Your task to perform on an android device: turn on the 24-hour format for clock Image 0: 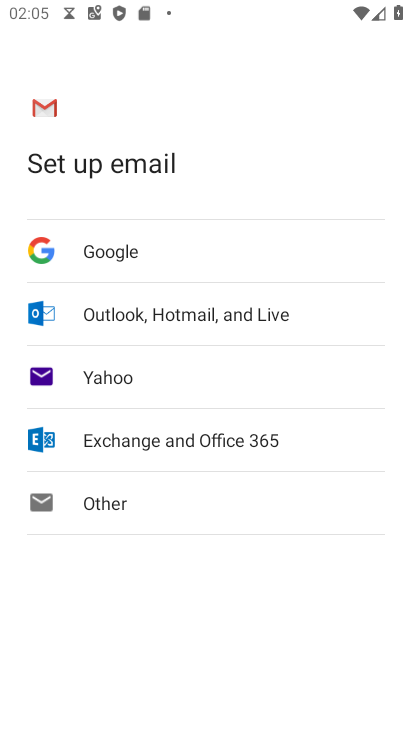
Step 0: press home button
Your task to perform on an android device: turn on the 24-hour format for clock Image 1: 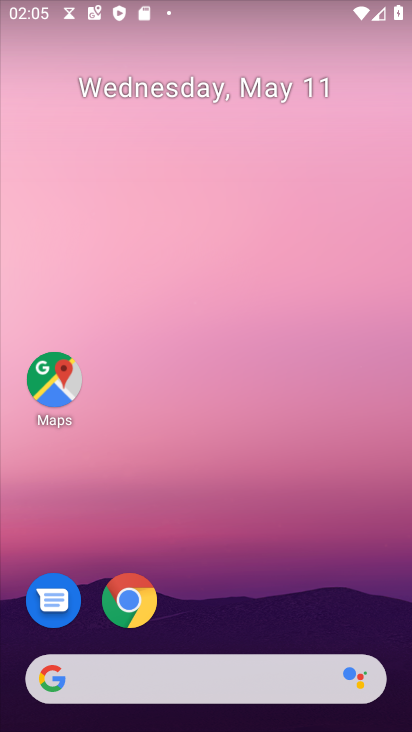
Step 1: drag from (229, 481) to (261, 251)
Your task to perform on an android device: turn on the 24-hour format for clock Image 2: 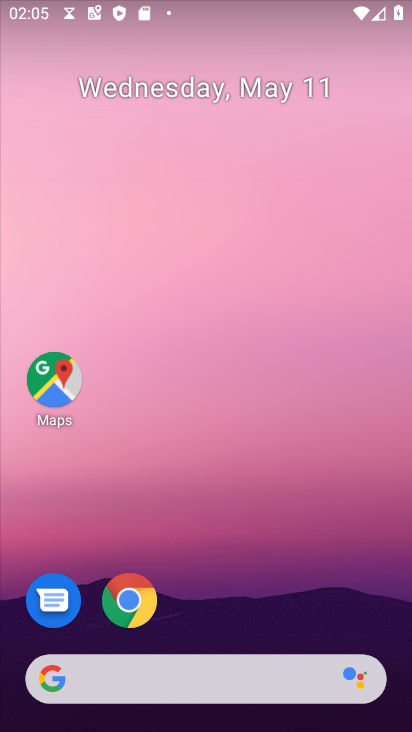
Step 2: drag from (238, 592) to (282, 238)
Your task to perform on an android device: turn on the 24-hour format for clock Image 3: 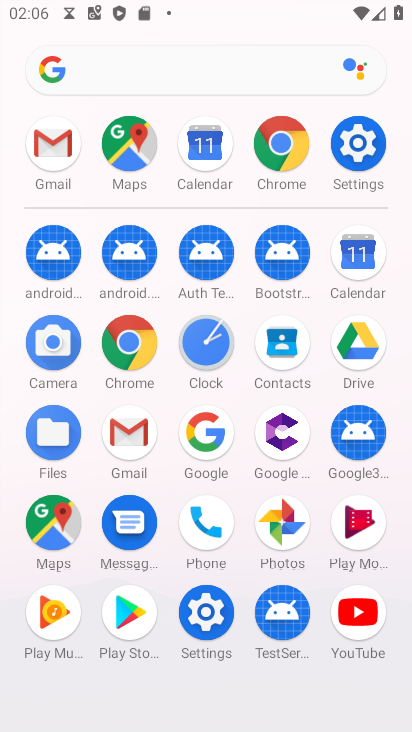
Step 3: click (195, 335)
Your task to perform on an android device: turn on the 24-hour format for clock Image 4: 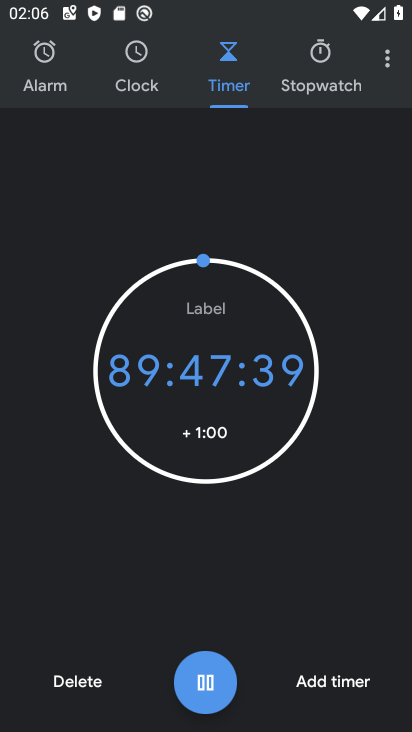
Step 4: click (375, 43)
Your task to perform on an android device: turn on the 24-hour format for clock Image 5: 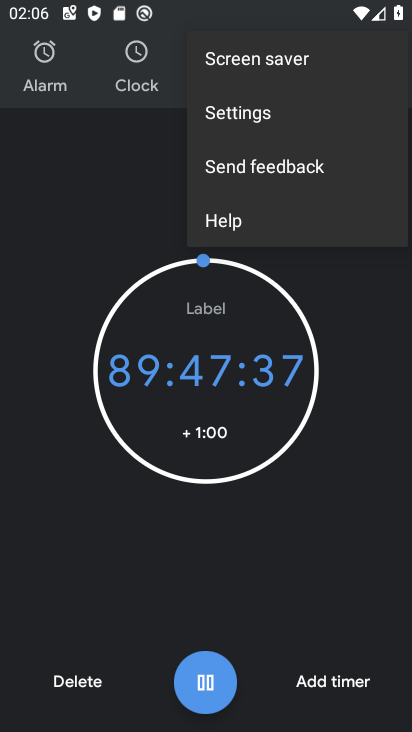
Step 5: click (283, 105)
Your task to perform on an android device: turn on the 24-hour format for clock Image 6: 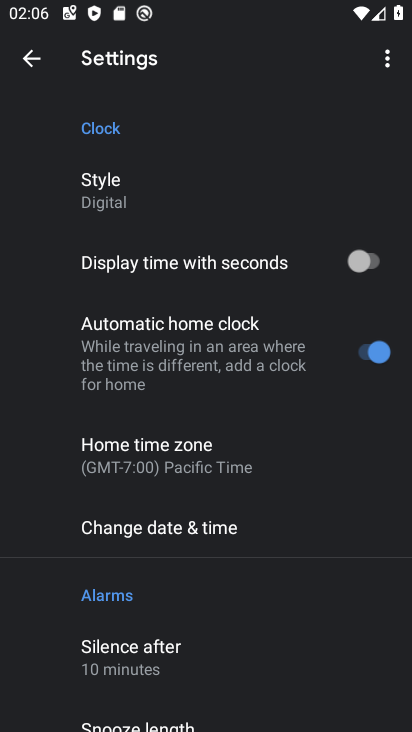
Step 6: click (169, 533)
Your task to perform on an android device: turn on the 24-hour format for clock Image 7: 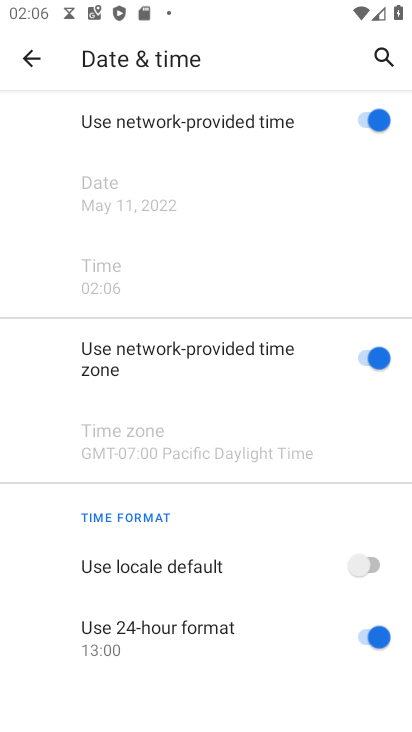
Step 7: task complete